Your task to perform on an android device: open chrome and create a bookmark for the current page Image 0: 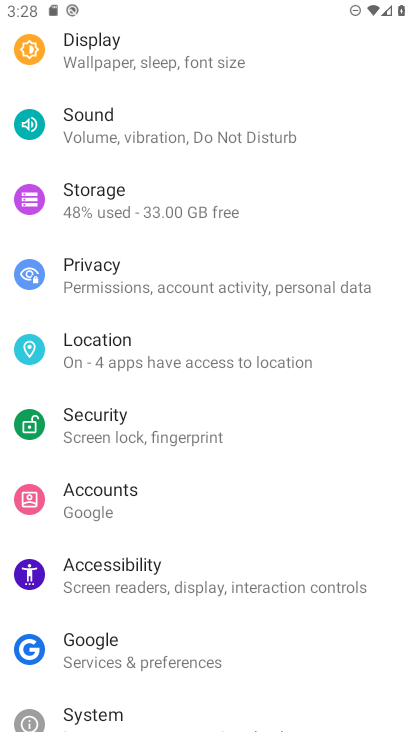
Step 0: press back button
Your task to perform on an android device: open chrome and create a bookmark for the current page Image 1: 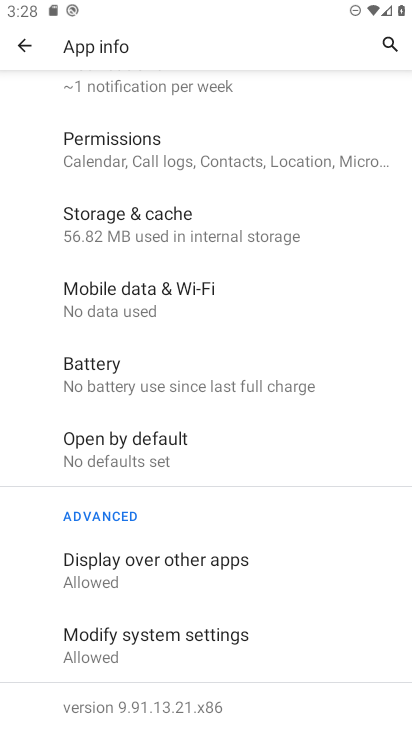
Step 1: press back button
Your task to perform on an android device: open chrome and create a bookmark for the current page Image 2: 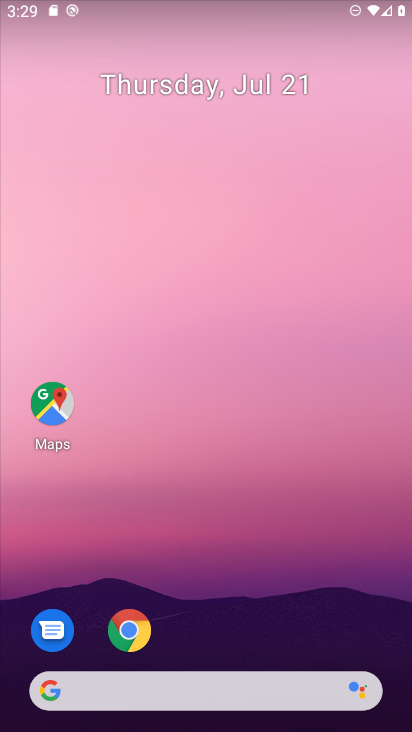
Step 2: click (129, 625)
Your task to perform on an android device: open chrome and create a bookmark for the current page Image 3: 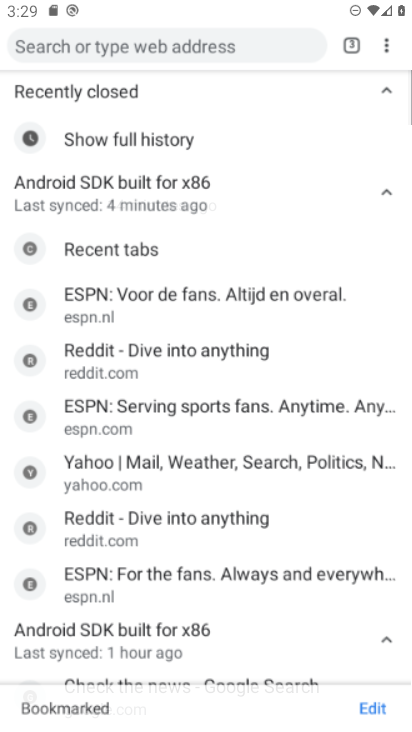
Step 3: click (354, 47)
Your task to perform on an android device: open chrome and create a bookmark for the current page Image 4: 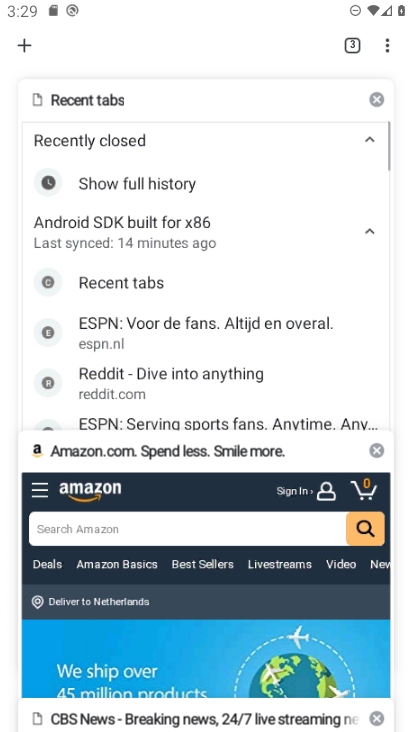
Step 4: click (347, 50)
Your task to perform on an android device: open chrome and create a bookmark for the current page Image 5: 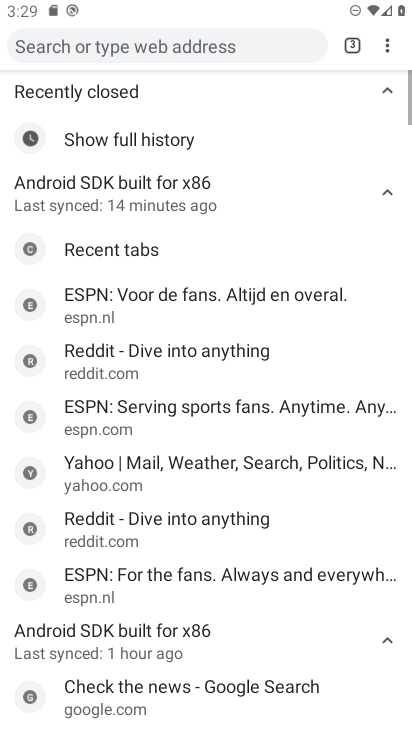
Step 5: task complete